Your task to perform on an android device: Go to battery settings Image 0: 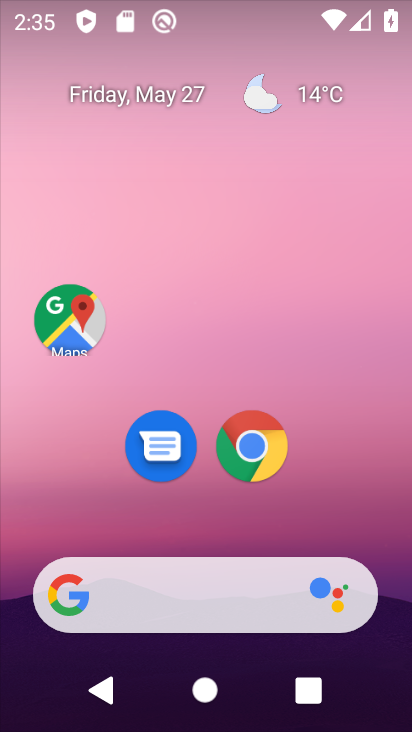
Step 0: drag from (194, 595) to (328, 56)
Your task to perform on an android device: Go to battery settings Image 1: 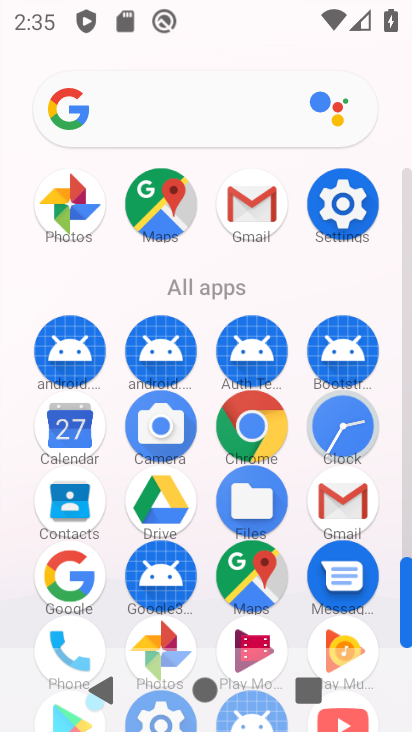
Step 1: click (328, 224)
Your task to perform on an android device: Go to battery settings Image 2: 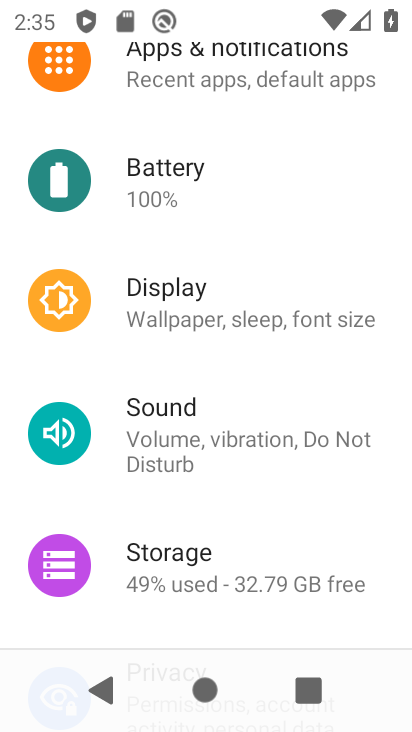
Step 2: click (165, 186)
Your task to perform on an android device: Go to battery settings Image 3: 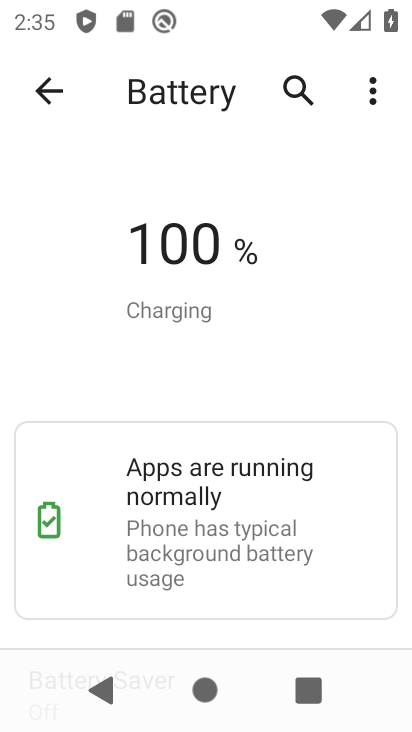
Step 3: task complete